Your task to perform on an android device: Go to Android settings Image 0: 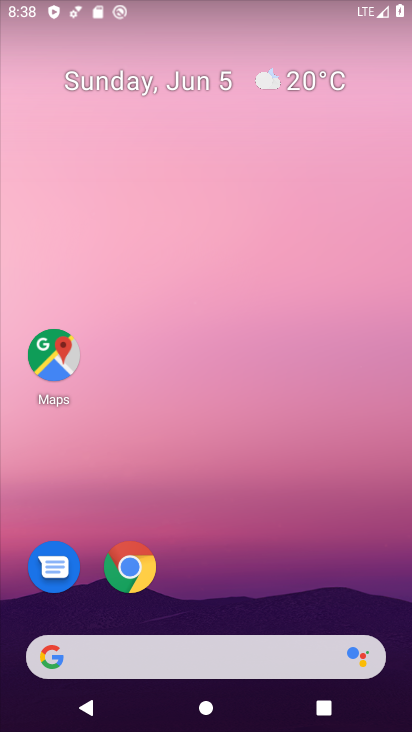
Step 0: drag from (268, 547) to (152, 60)
Your task to perform on an android device: Go to Android settings Image 1: 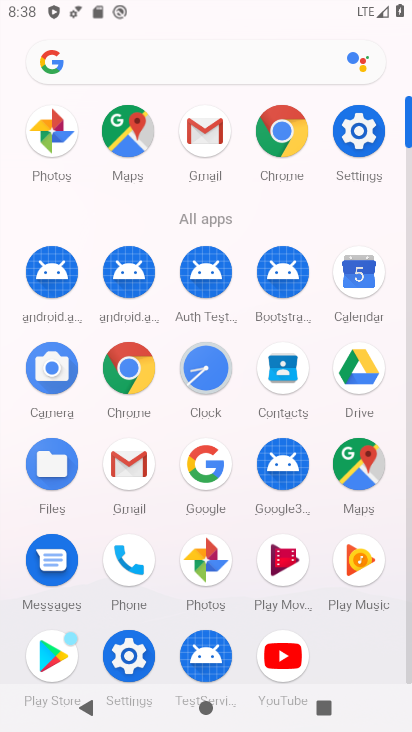
Step 1: click (356, 130)
Your task to perform on an android device: Go to Android settings Image 2: 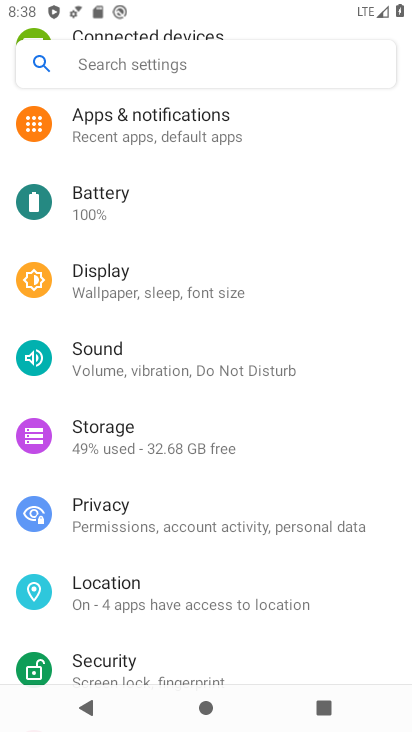
Step 2: task complete